Your task to perform on an android device: Go to Yahoo.com Image 0: 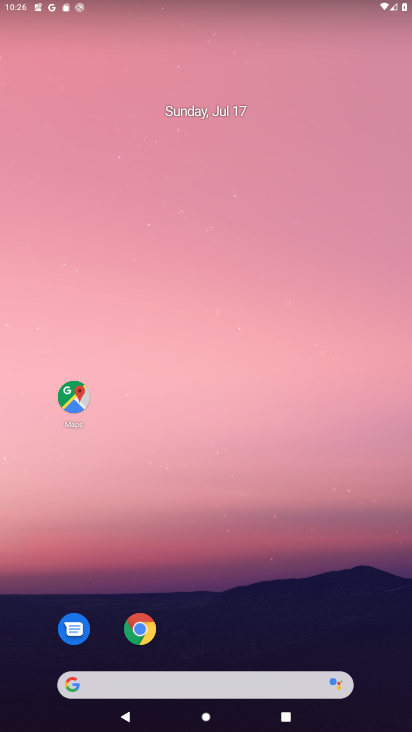
Step 0: click (139, 627)
Your task to perform on an android device: Go to Yahoo.com Image 1: 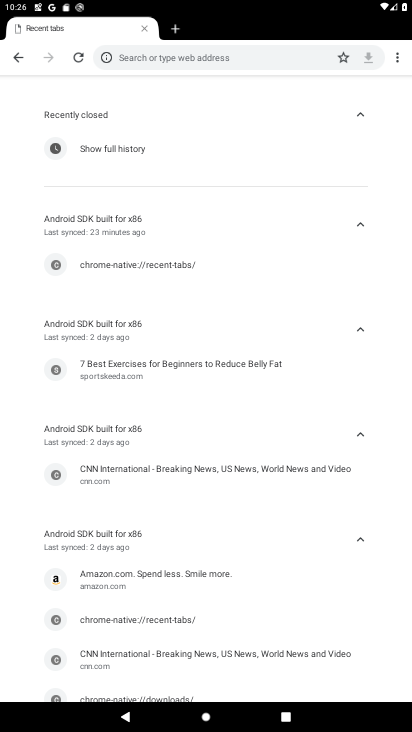
Step 1: click (269, 68)
Your task to perform on an android device: Go to Yahoo.com Image 2: 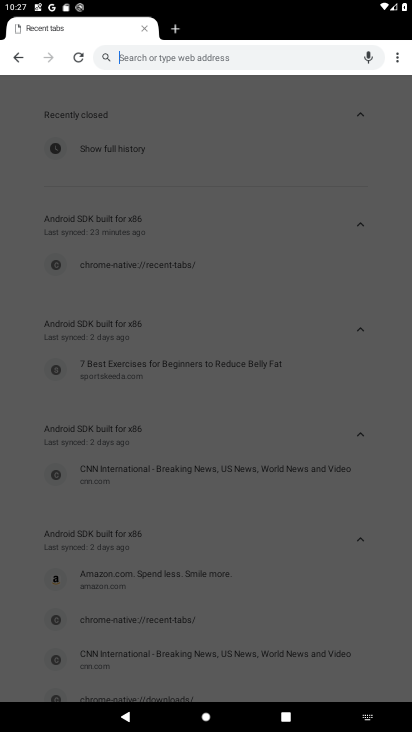
Step 2: type "Yahoo.com"
Your task to perform on an android device: Go to Yahoo.com Image 3: 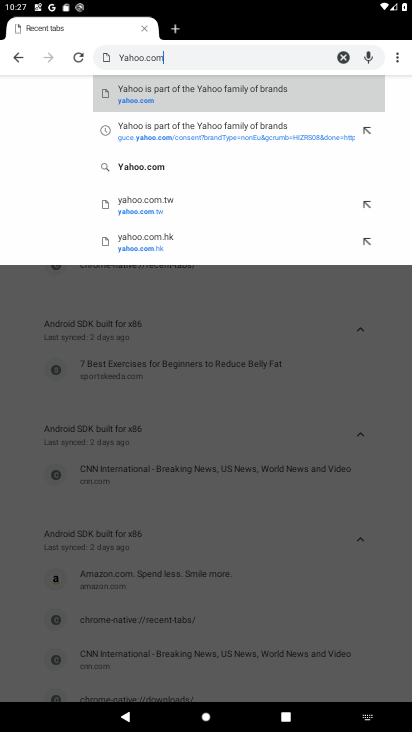
Step 3: click (151, 166)
Your task to perform on an android device: Go to Yahoo.com Image 4: 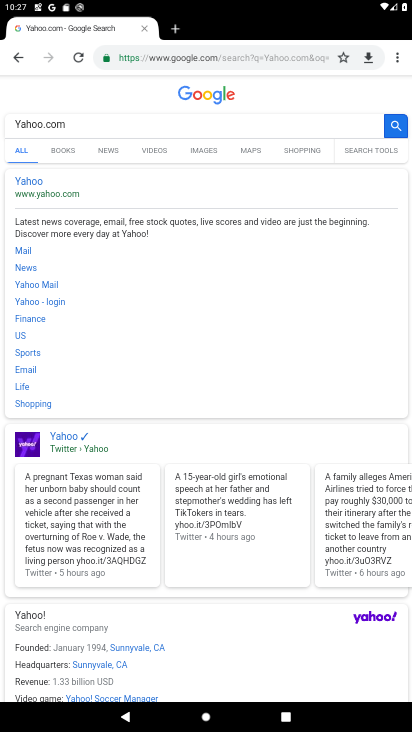
Step 4: click (63, 196)
Your task to perform on an android device: Go to Yahoo.com Image 5: 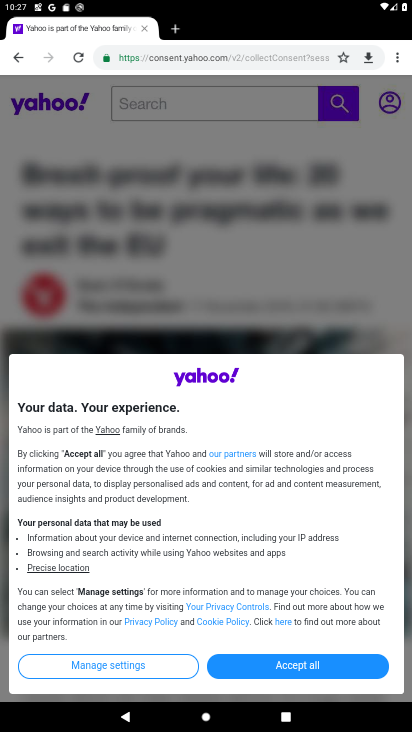
Step 5: click (309, 660)
Your task to perform on an android device: Go to Yahoo.com Image 6: 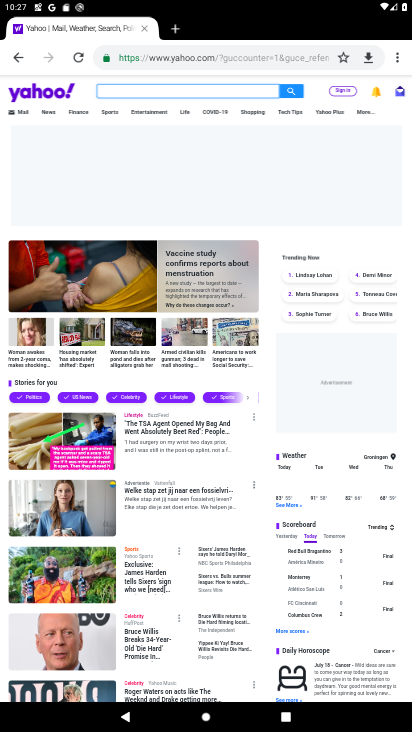
Step 6: task complete